Your task to perform on an android device: Open location settings Image 0: 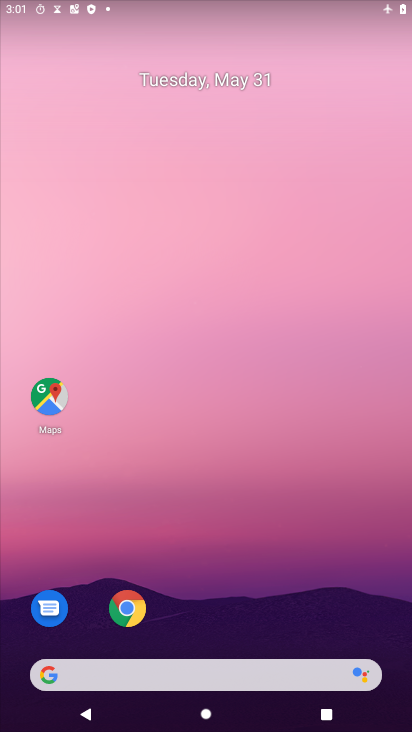
Step 0: drag from (224, 638) to (311, 216)
Your task to perform on an android device: Open location settings Image 1: 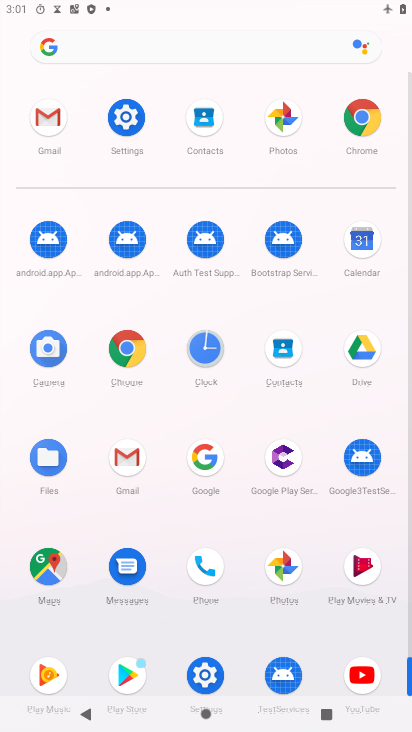
Step 1: click (121, 140)
Your task to perform on an android device: Open location settings Image 2: 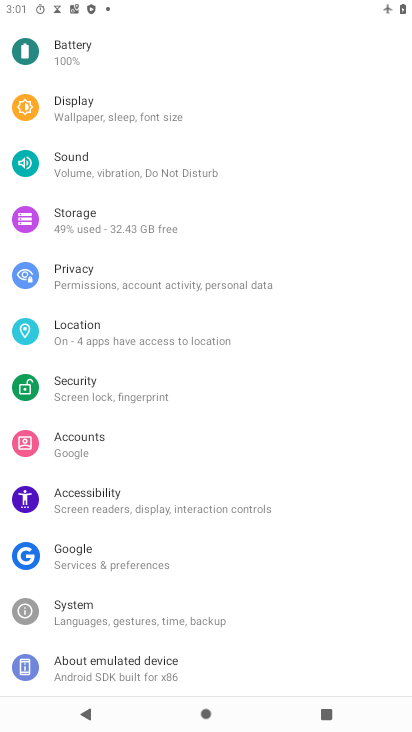
Step 2: click (119, 335)
Your task to perform on an android device: Open location settings Image 3: 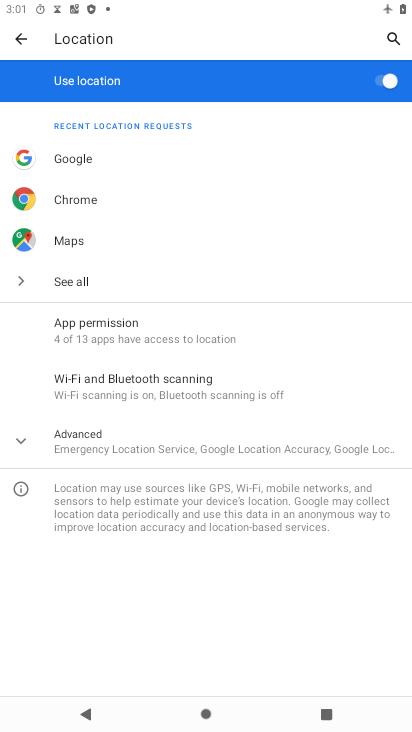
Step 3: task complete